Your task to perform on an android device: check android version Image 0: 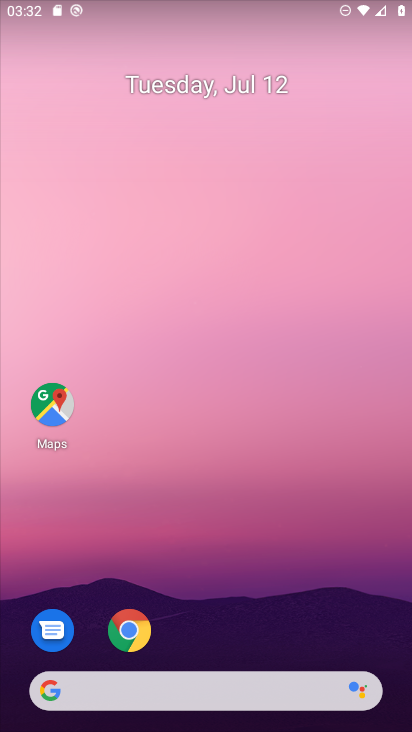
Step 0: drag from (379, 631) to (344, 109)
Your task to perform on an android device: check android version Image 1: 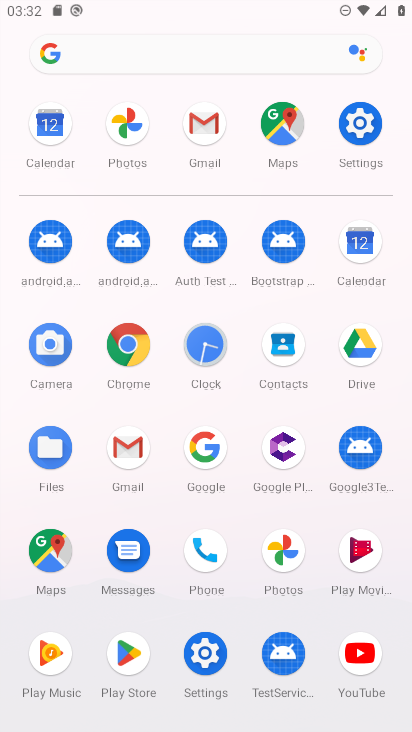
Step 1: click (203, 655)
Your task to perform on an android device: check android version Image 2: 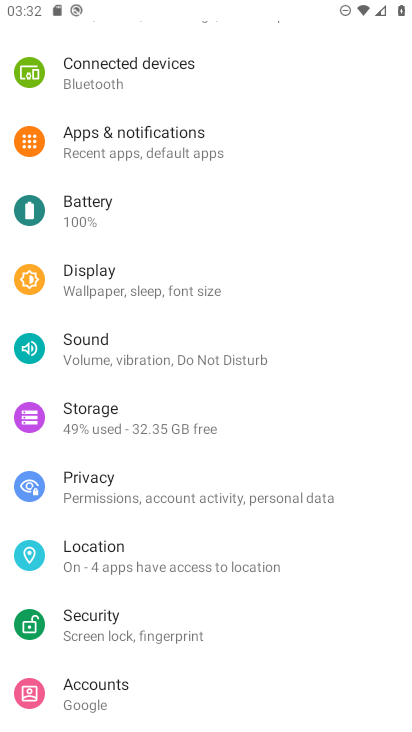
Step 2: drag from (274, 637) to (263, 229)
Your task to perform on an android device: check android version Image 3: 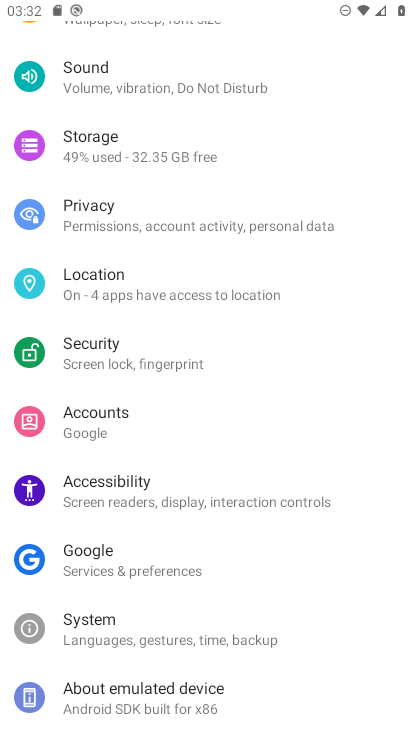
Step 3: click (125, 693)
Your task to perform on an android device: check android version Image 4: 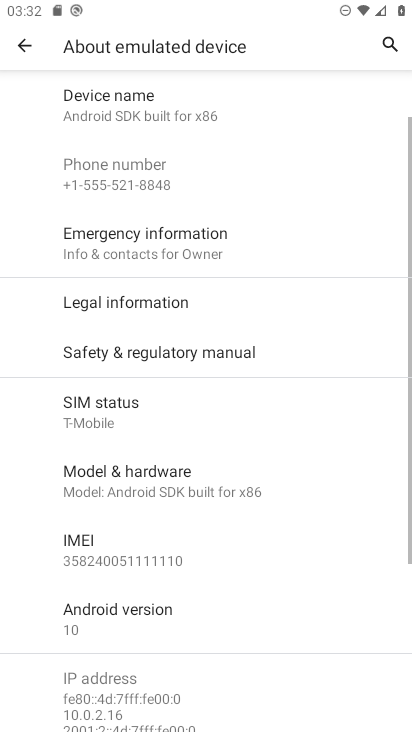
Step 4: click (140, 618)
Your task to perform on an android device: check android version Image 5: 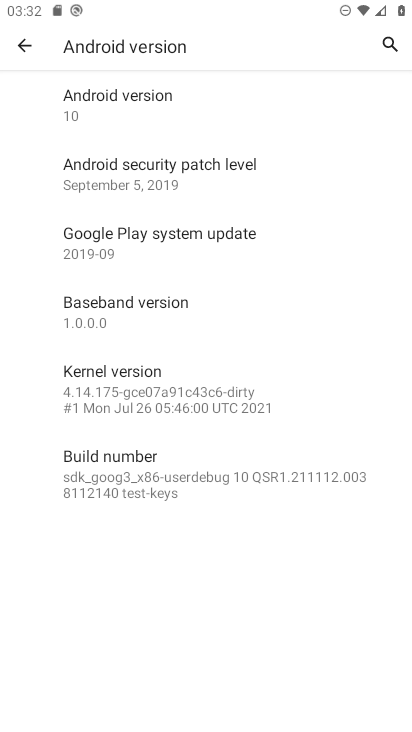
Step 5: task complete